Your task to perform on an android device: Open calendar and show me the fourth week of next month Image 0: 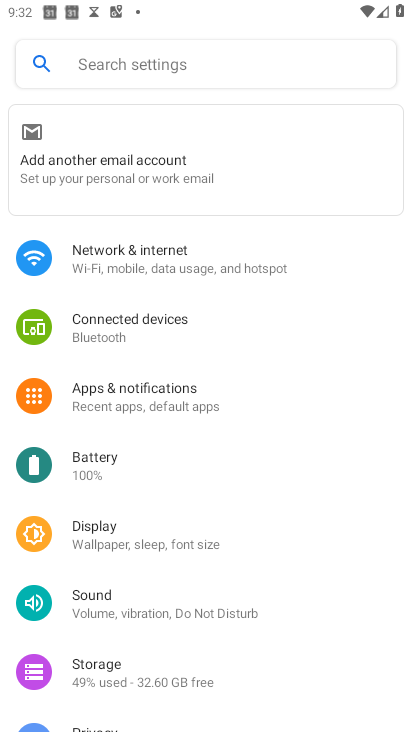
Step 0: press home button
Your task to perform on an android device: Open calendar and show me the fourth week of next month Image 1: 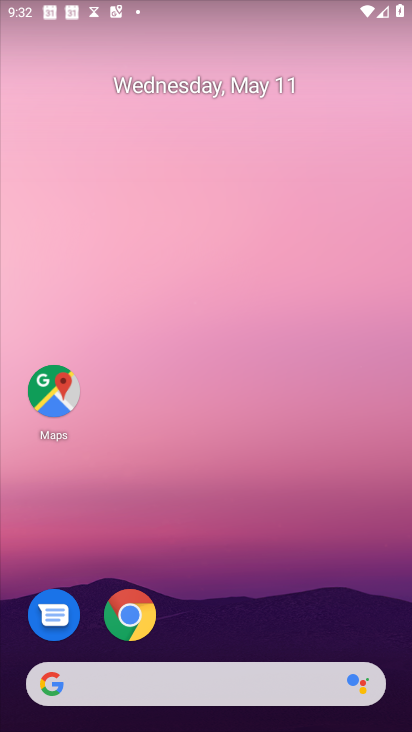
Step 1: drag from (7, 654) to (260, 125)
Your task to perform on an android device: Open calendar and show me the fourth week of next month Image 2: 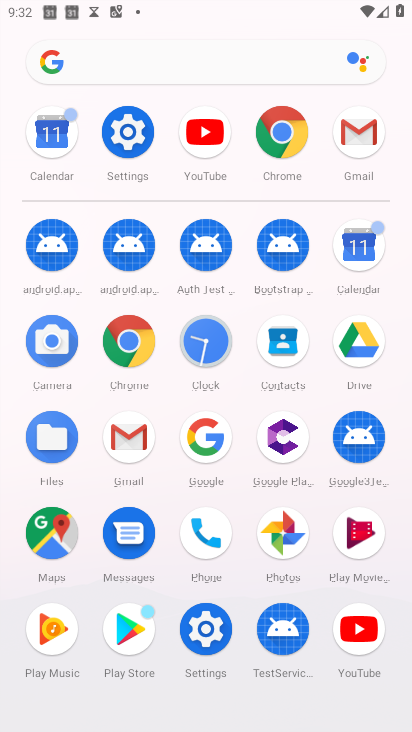
Step 2: click (354, 252)
Your task to perform on an android device: Open calendar and show me the fourth week of next month Image 3: 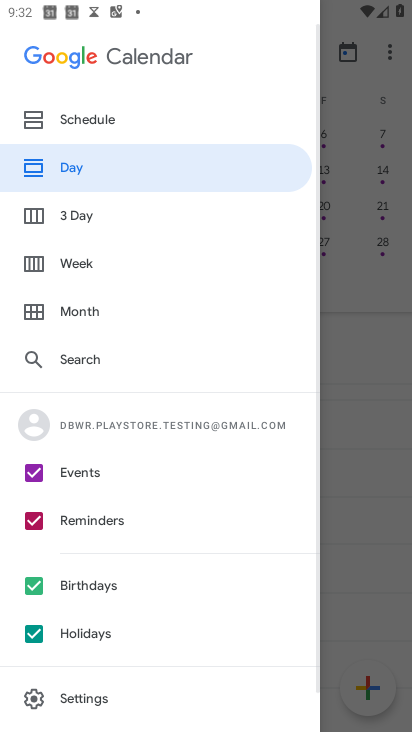
Step 3: click (347, 337)
Your task to perform on an android device: Open calendar and show me the fourth week of next month Image 4: 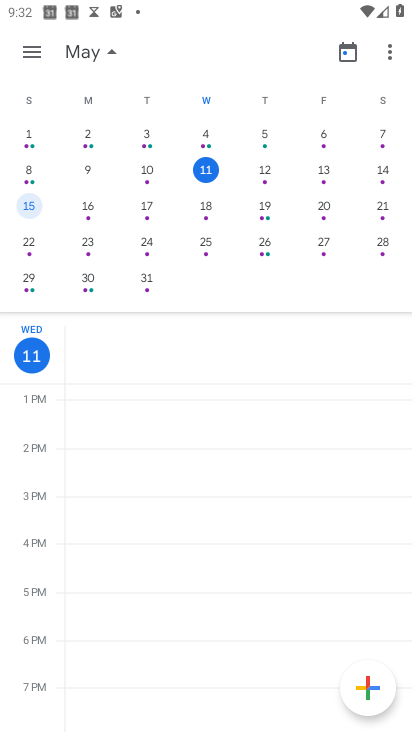
Step 4: click (89, 59)
Your task to perform on an android device: Open calendar and show me the fourth week of next month Image 5: 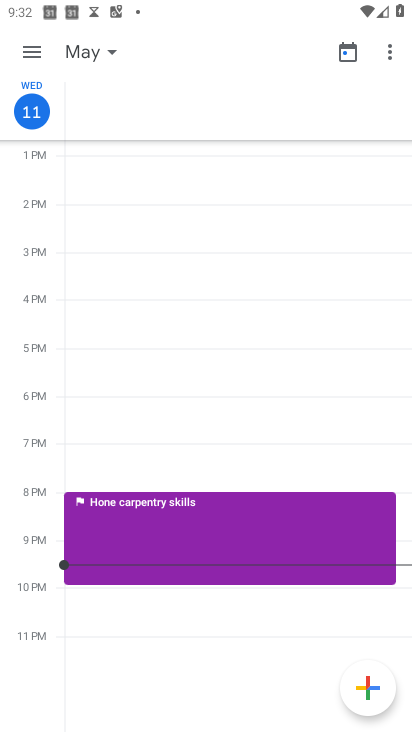
Step 5: click (89, 59)
Your task to perform on an android device: Open calendar and show me the fourth week of next month Image 6: 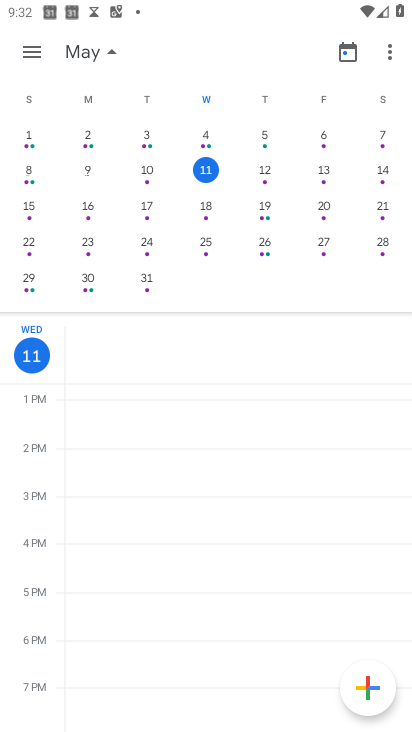
Step 6: drag from (383, 178) to (30, 143)
Your task to perform on an android device: Open calendar and show me the fourth week of next month Image 7: 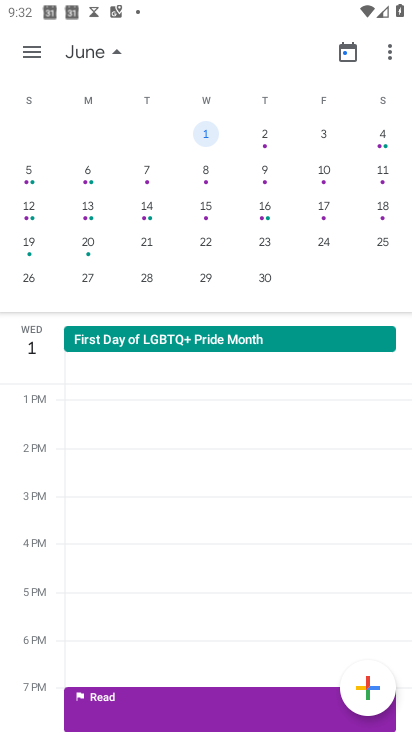
Step 7: click (211, 208)
Your task to perform on an android device: Open calendar and show me the fourth week of next month Image 8: 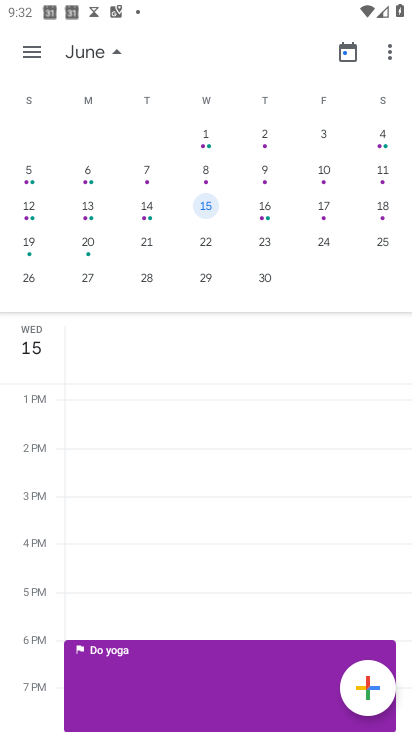
Step 8: click (208, 239)
Your task to perform on an android device: Open calendar and show me the fourth week of next month Image 9: 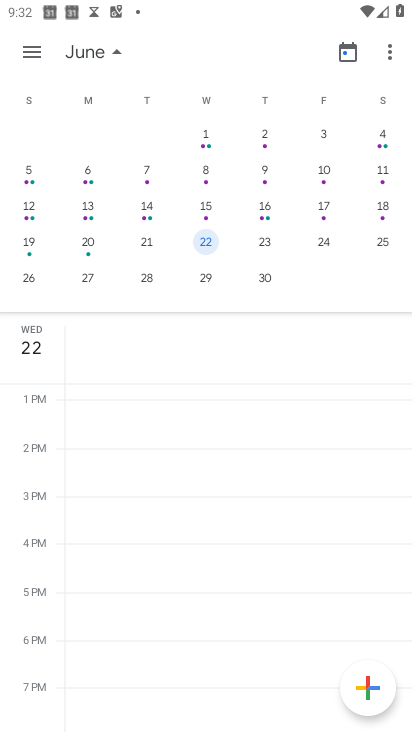
Step 9: task complete